Your task to perform on an android device: Add "bose soundlink mini" to the cart on target.com, then select checkout. Image 0: 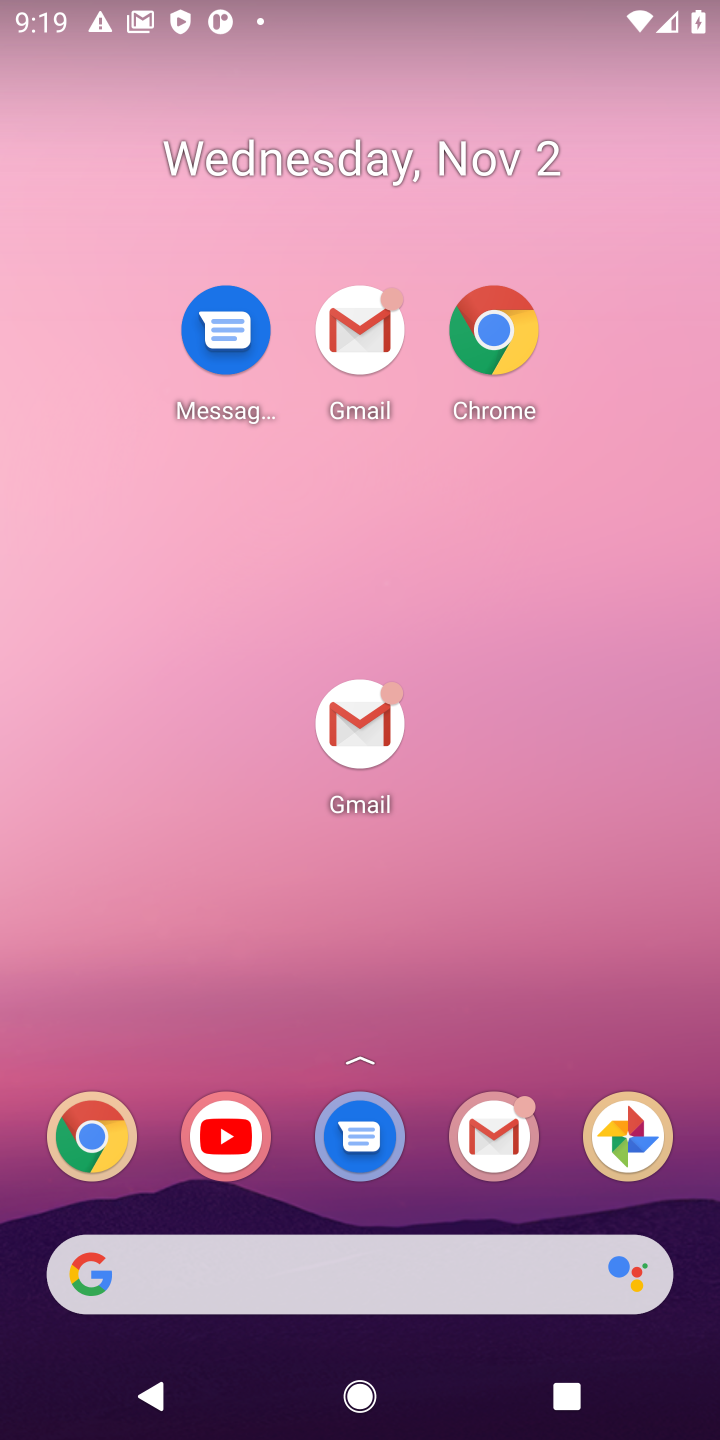
Step 0: drag from (323, 779) to (327, 612)
Your task to perform on an android device: Add "bose soundlink mini" to the cart on target.com, then select checkout. Image 1: 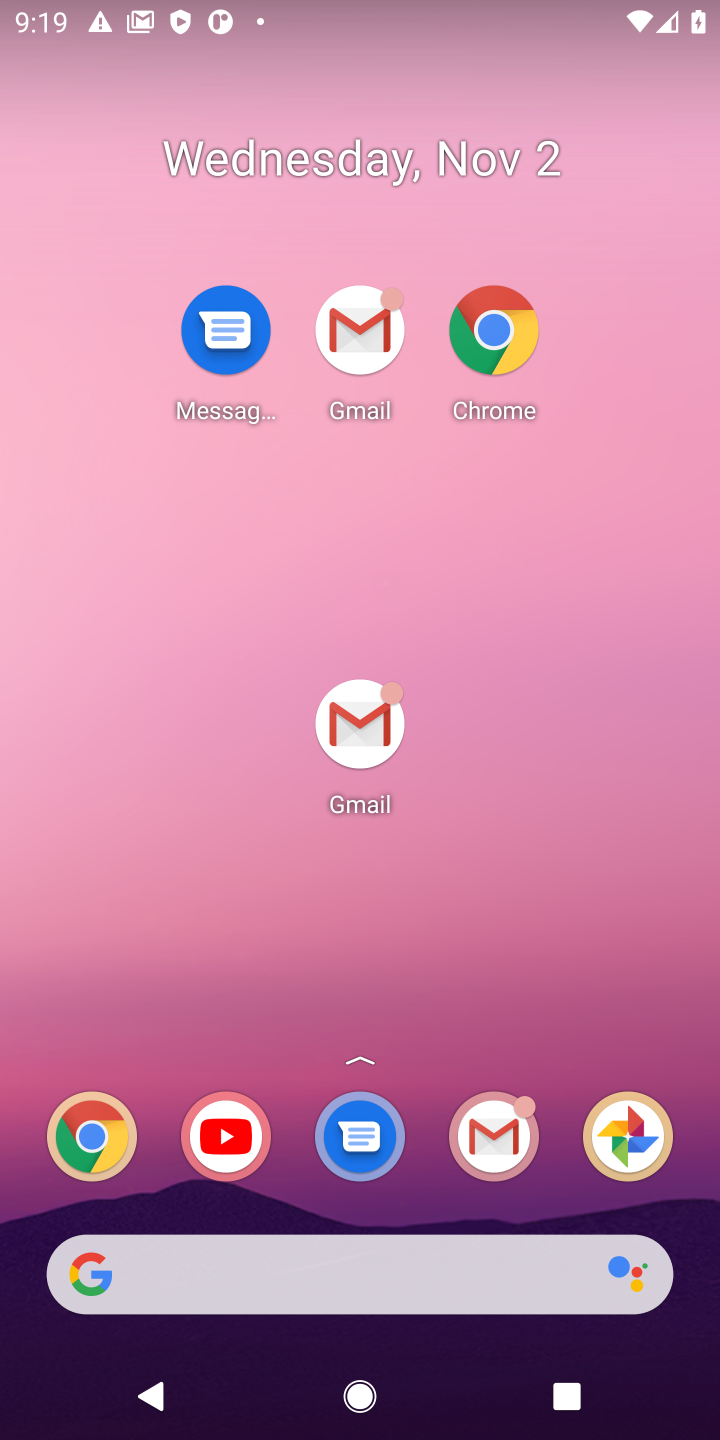
Step 1: drag from (254, 1290) to (341, 275)
Your task to perform on an android device: Add "bose soundlink mini" to the cart on target.com, then select checkout. Image 2: 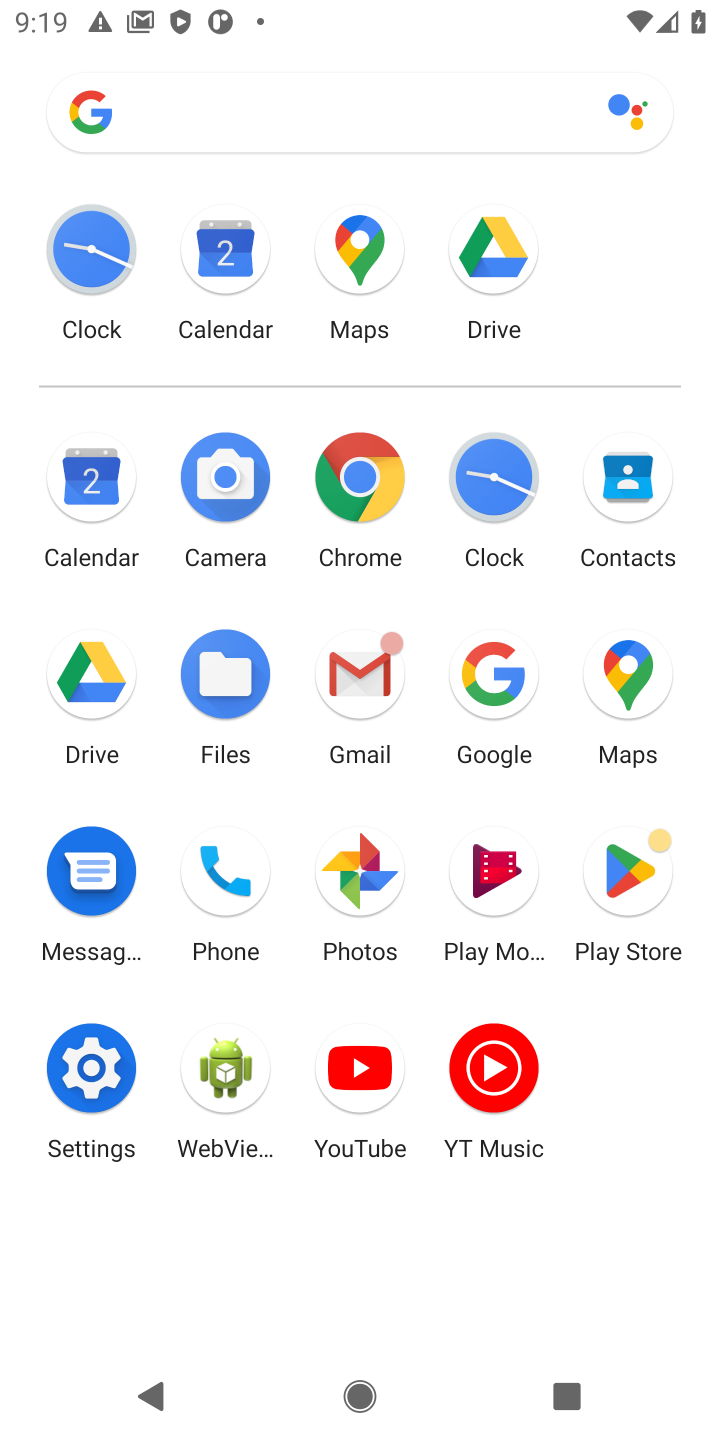
Step 2: click (479, 680)
Your task to perform on an android device: Add "bose soundlink mini" to the cart on target.com, then select checkout. Image 3: 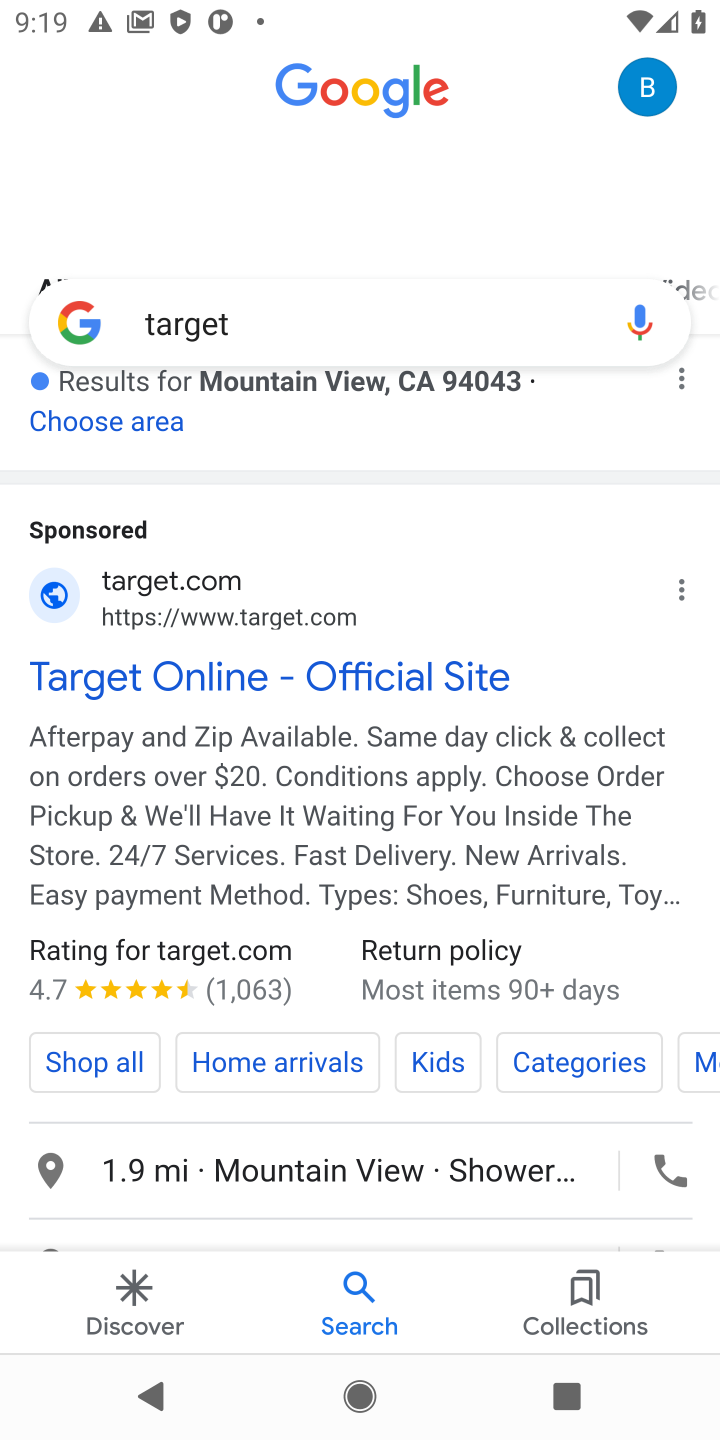
Step 3: click (58, 592)
Your task to perform on an android device: Add "bose soundlink mini" to the cart on target.com, then select checkout. Image 4: 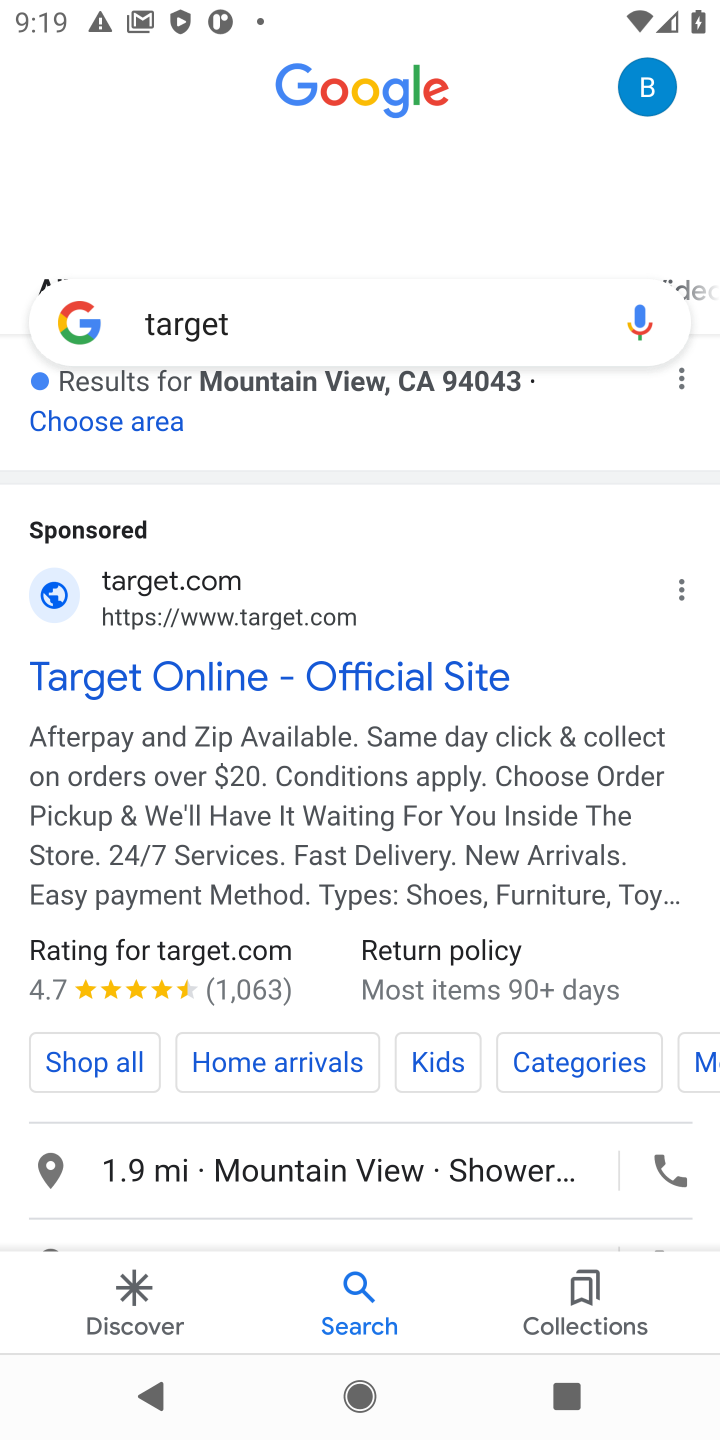
Step 4: click (58, 592)
Your task to perform on an android device: Add "bose soundlink mini" to the cart on target.com, then select checkout. Image 5: 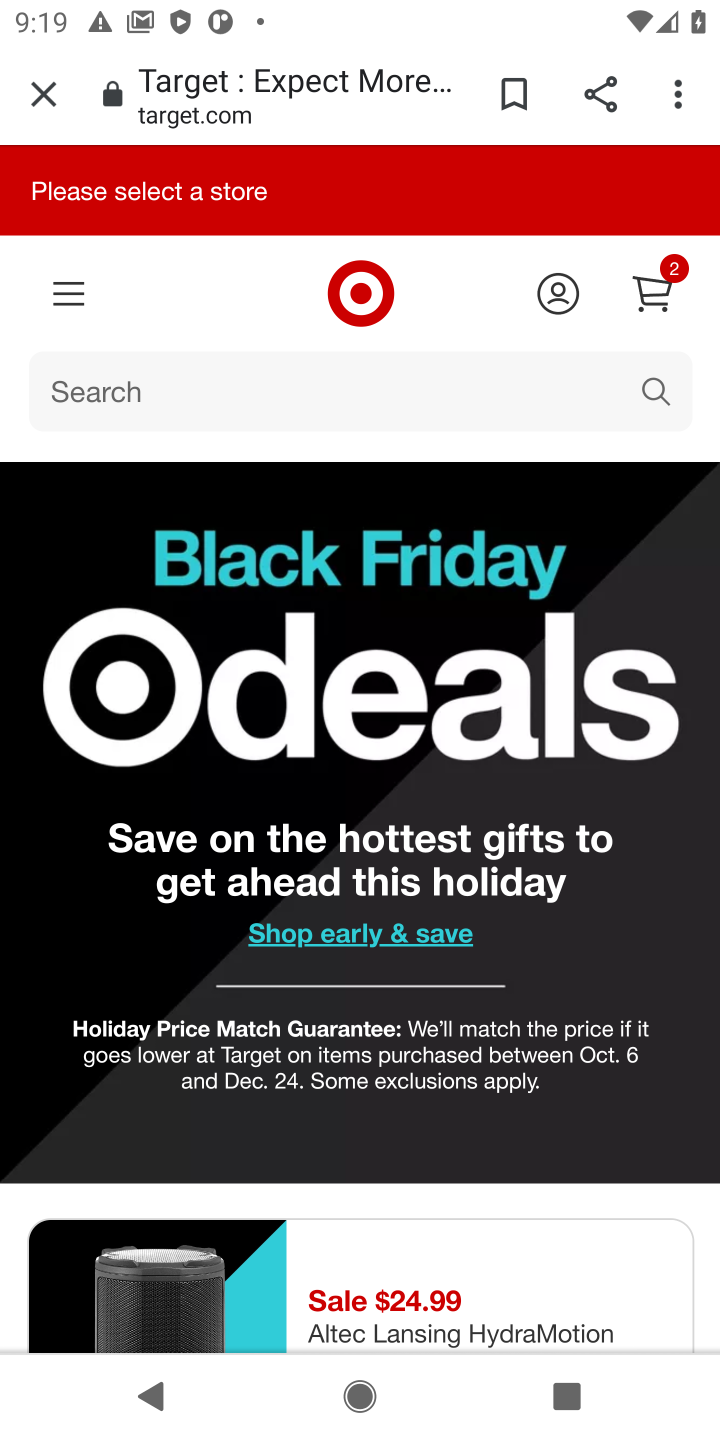
Step 5: click (347, 378)
Your task to perform on an android device: Add "bose soundlink mini" to the cart on target.com, then select checkout. Image 6: 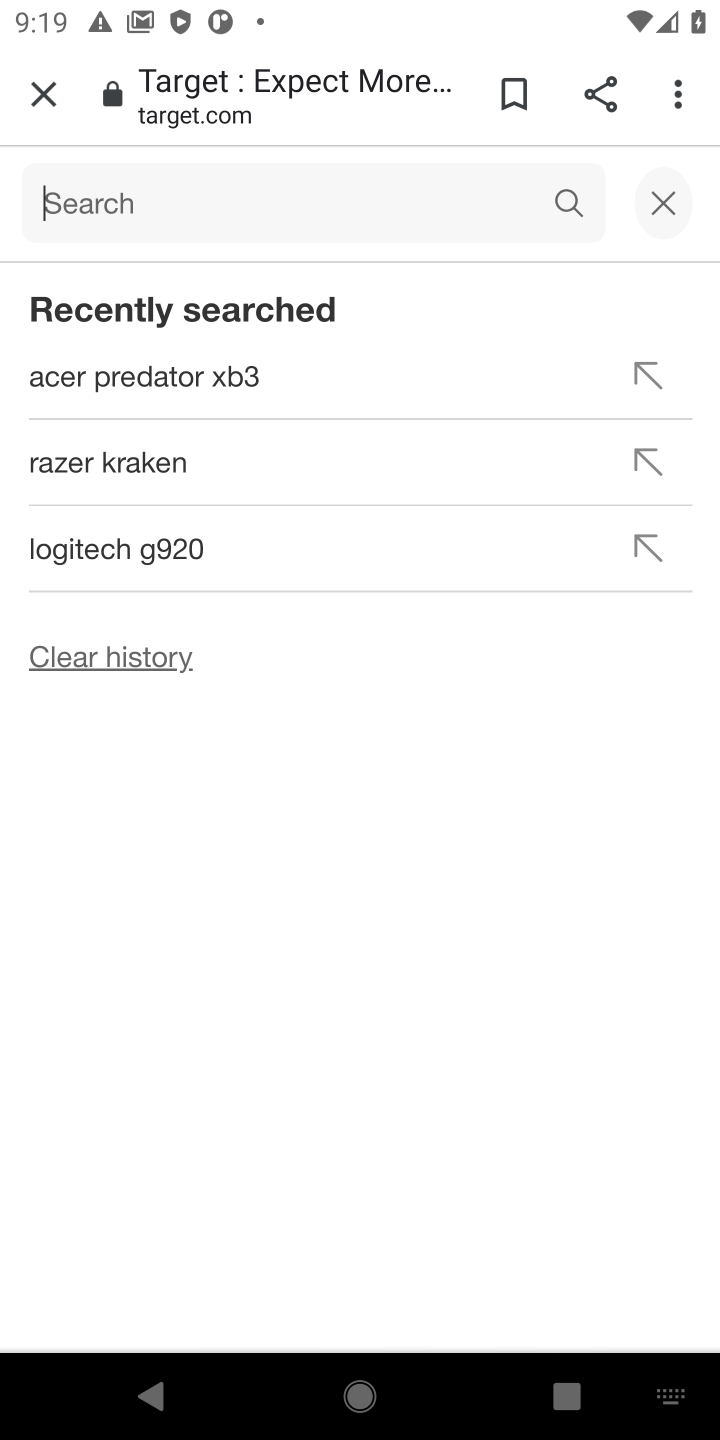
Step 6: click (278, 173)
Your task to perform on an android device: Add "bose soundlink mini" to the cart on target.com, then select checkout. Image 7: 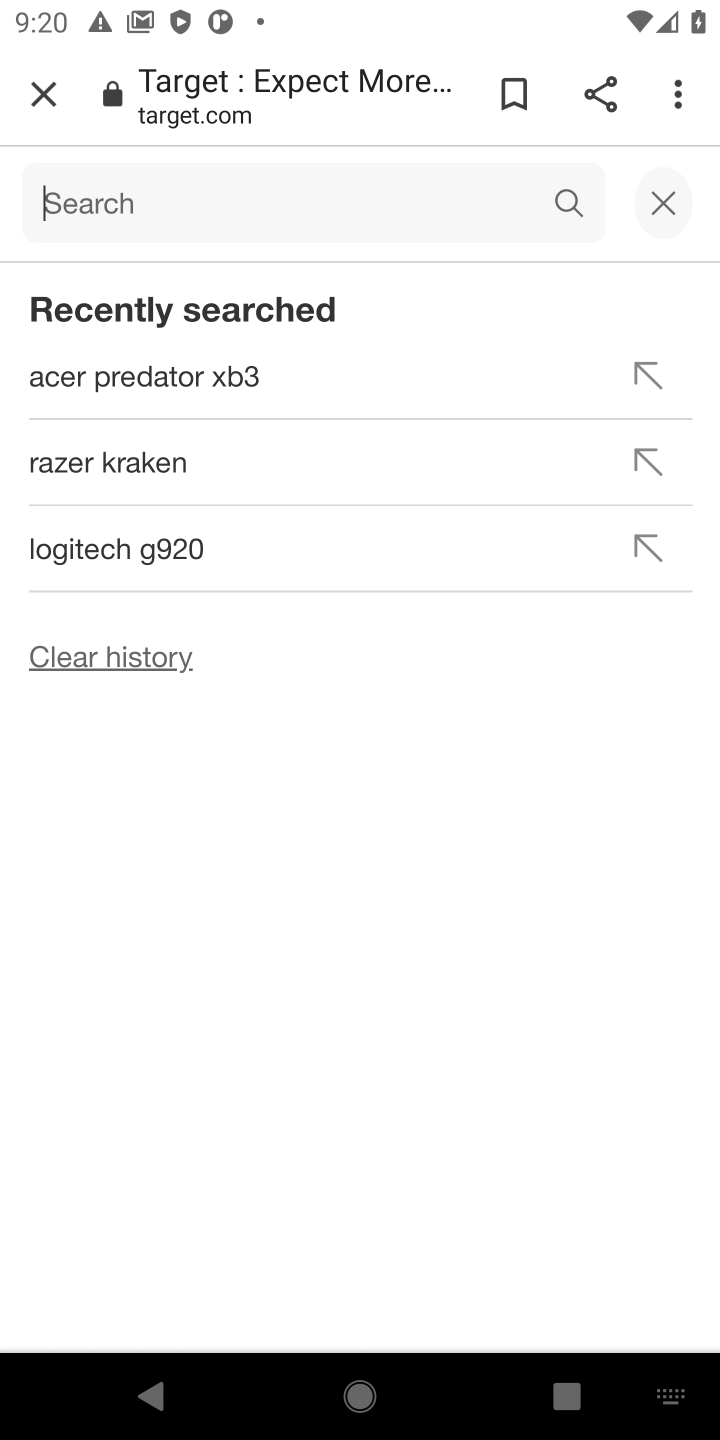
Step 7: type "bose soundlink mini "
Your task to perform on an android device: Add "bose soundlink mini" to the cart on target.com, then select checkout. Image 8: 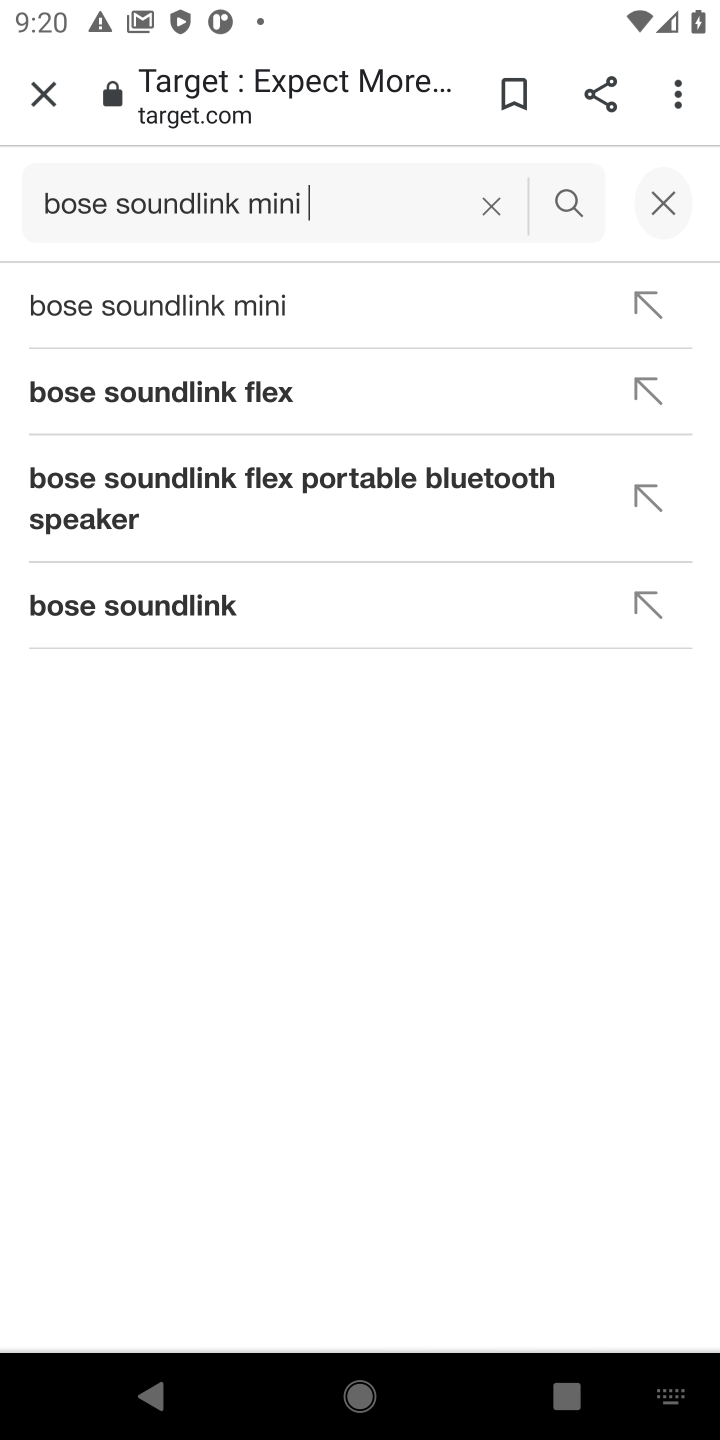
Step 8: click (315, 314)
Your task to perform on an android device: Add "bose soundlink mini" to the cart on target.com, then select checkout. Image 9: 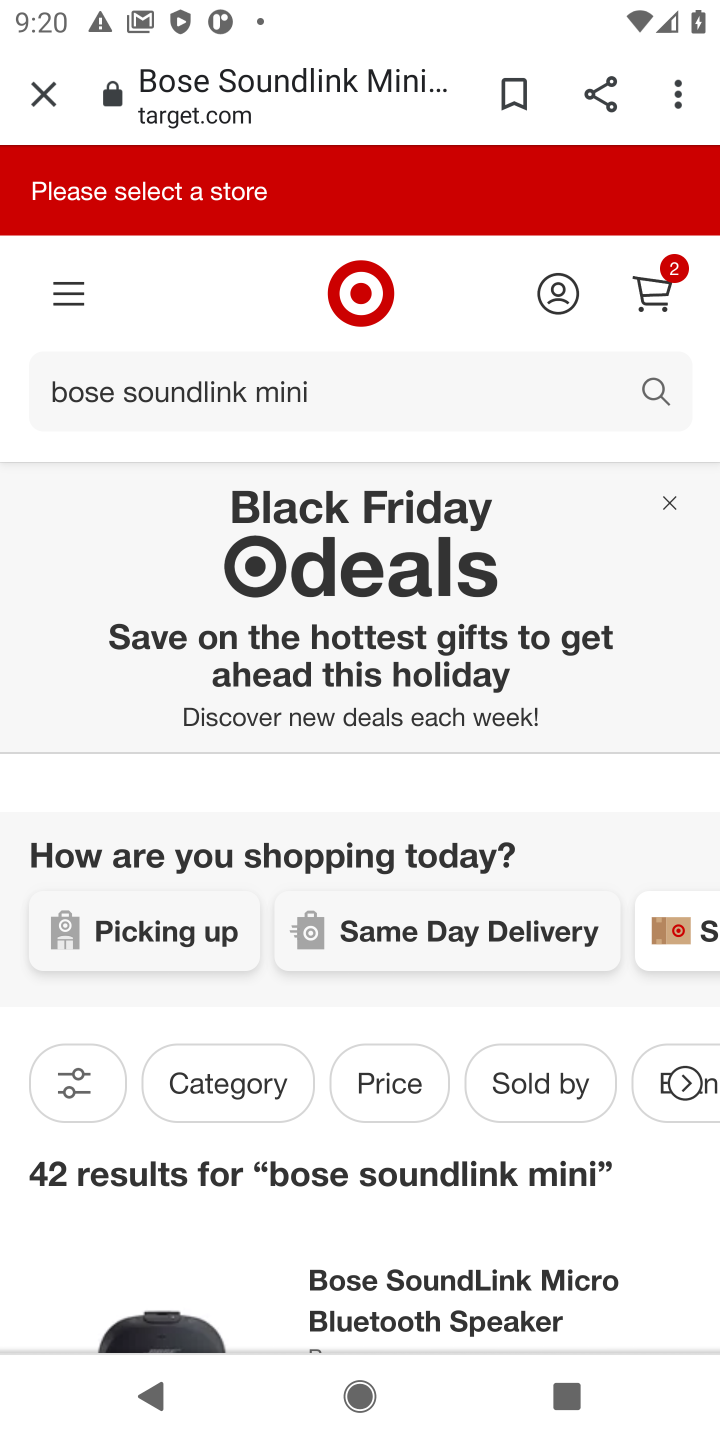
Step 9: drag from (288, 1117) to (317, 448)
Your task to perform on an android device: Add "bose soundlink mini" to the cart on target.com, then select checkout. Image 10: 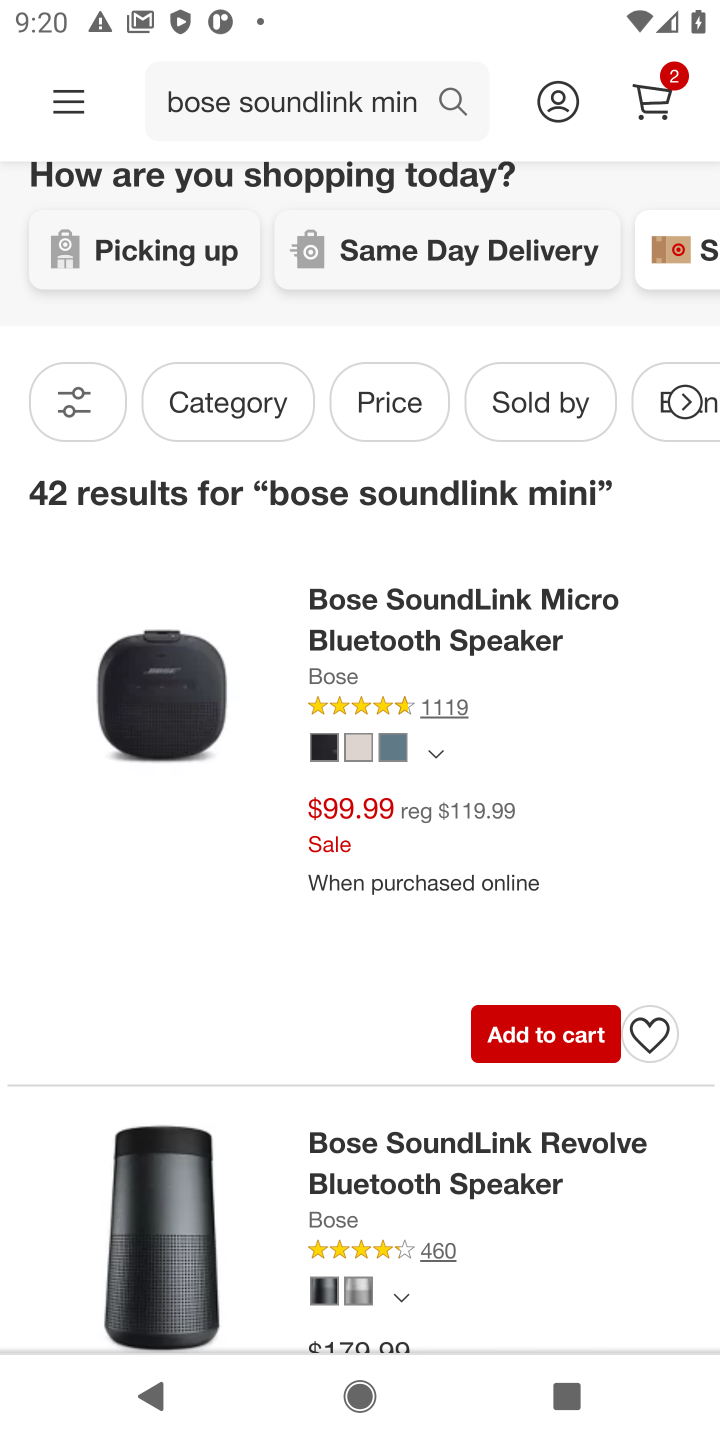
Step 10: click (518, 1029)
Your task to perform on an android device: Add "bose soundlink mini" to the cart on target.com, then select checkout. Image 11: 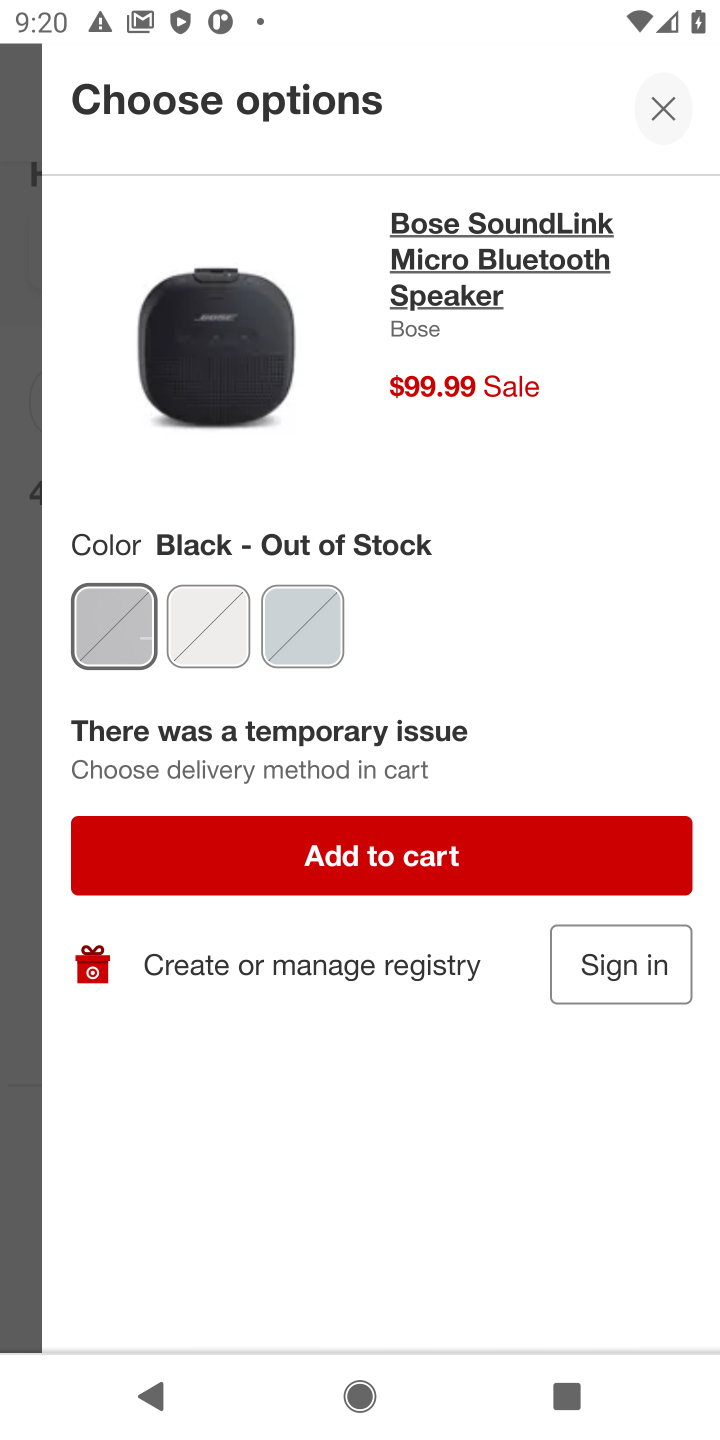
Step 11: click (393, 854)
Your task to perform on an android device: Add "bose soundlink mini" to the cart on target.com, then select checkout. Image 12: 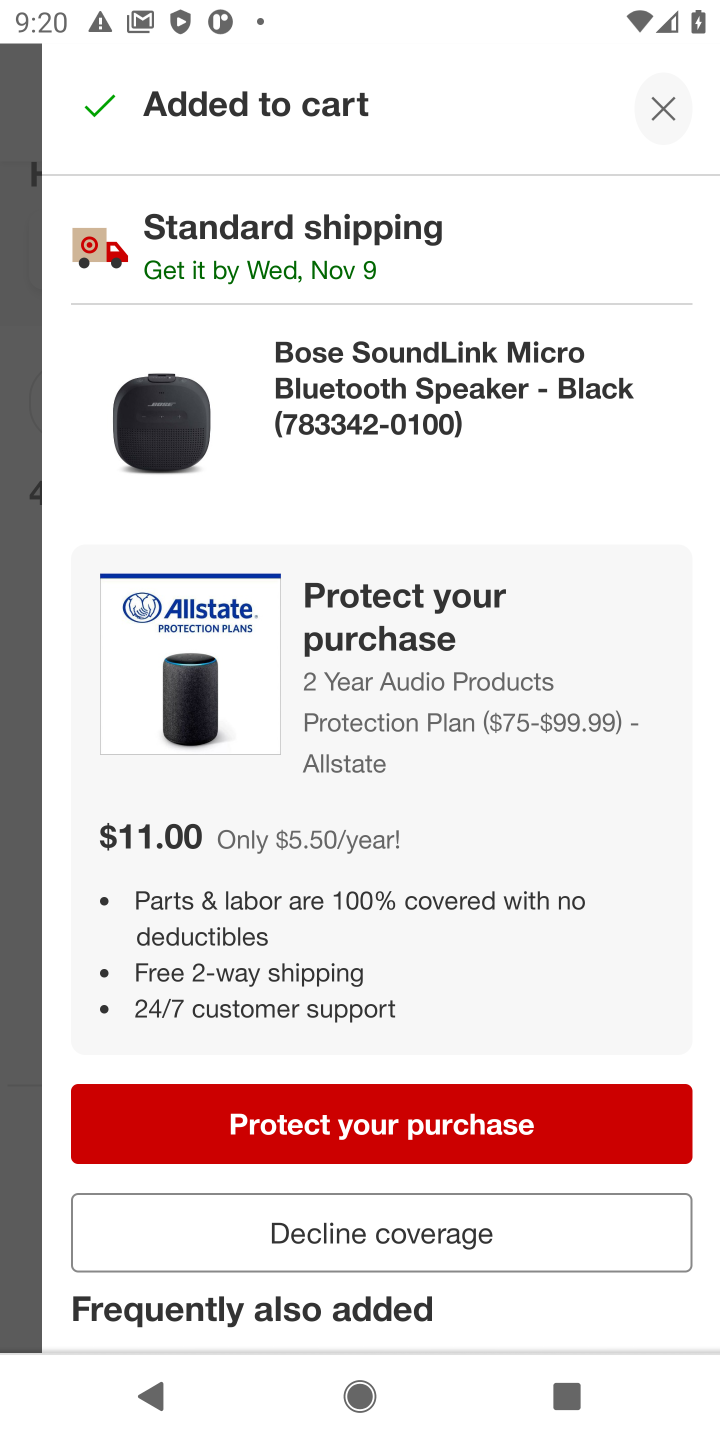
Step 12: task complete